Your task to perform on an android device: see sites visited before in the chrome app Image 0: 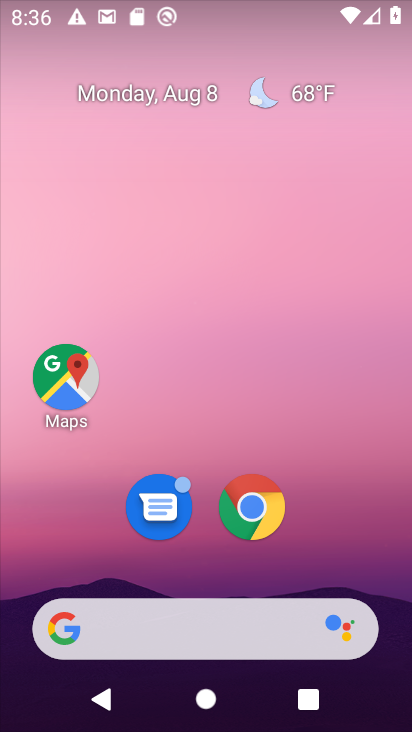
Step 0: click (250, 513)
Your task to perform on an android device: see sites visited before in the chrome app Image 1: 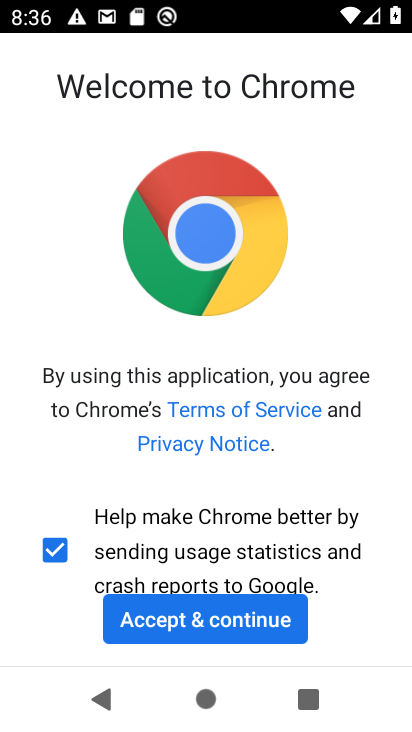
Step 1: click (125, 608)
Your task to perform on an android device: see sites visited before in the chrome app Image 2: 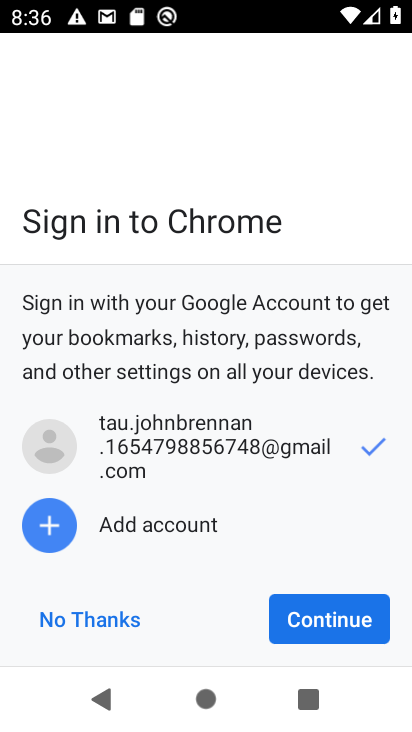
Step 2: click (301, 617)
Your task to perform on an android device: see sites visited before in the chrome app Image 3: 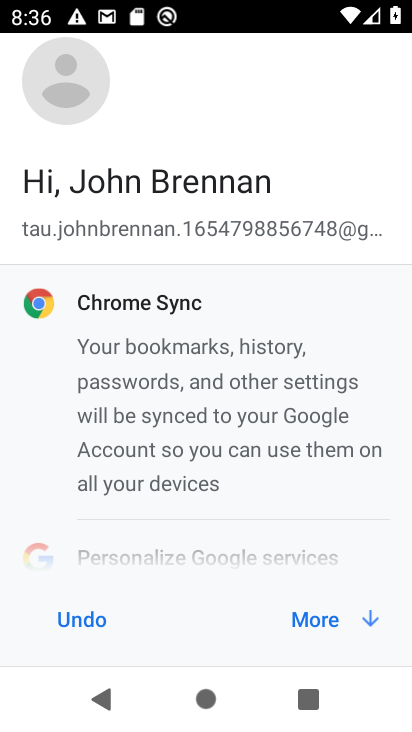
Step 3: click (340, 611)
Your task to perform on an android device: see sites visited before in the chrome app Image 4: 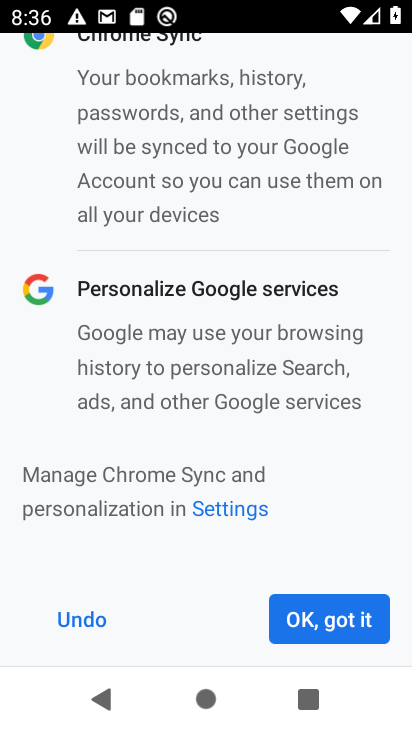
Step 4: click (340, 611)
Your task to perform on an android device: see sites visited before in the chrome app Image 5: 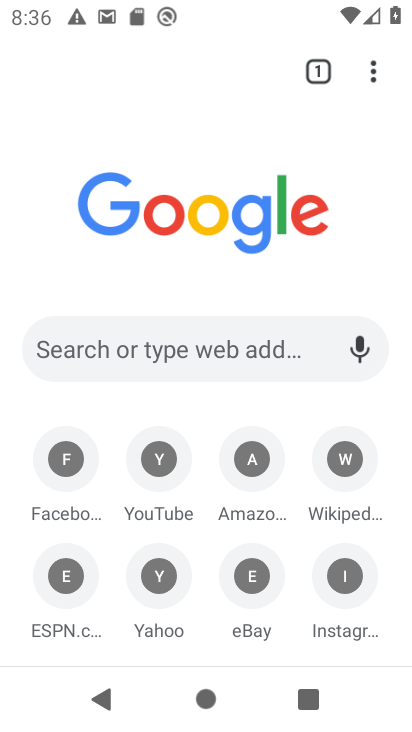
Step 5: click (366, 62)
Your task to perform on an android device: see sites visited before in the chrome app Image 6: 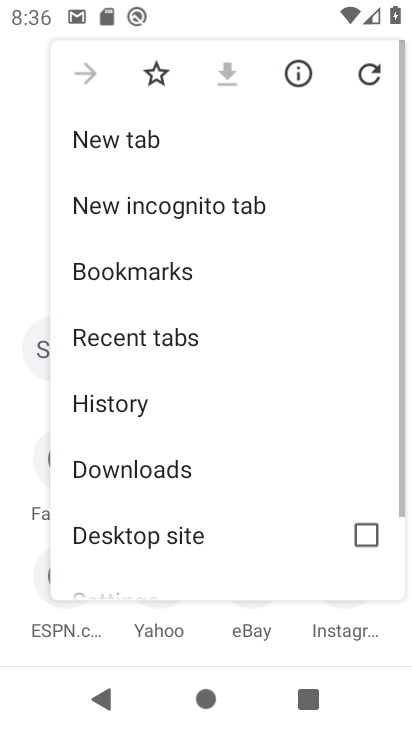
Step 6: drag from (262, 458) to (220, 118)
Your task to perform on an android device: see sites visited before in the chrome app Image 7: 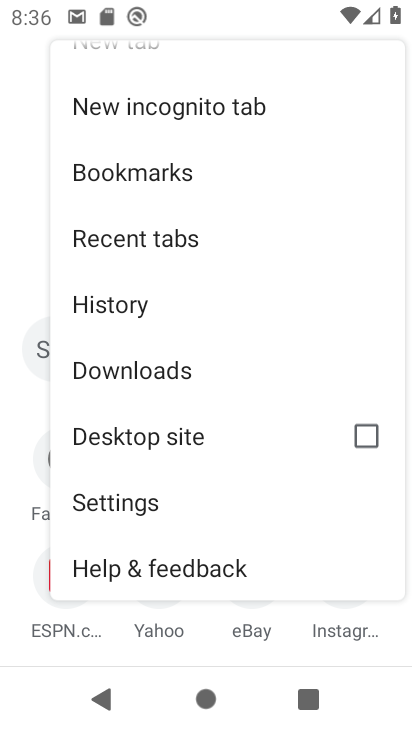
Step 7: click (71, 489)
Your task to perform on an android device: see sites visited before in the chrome app Image 8: 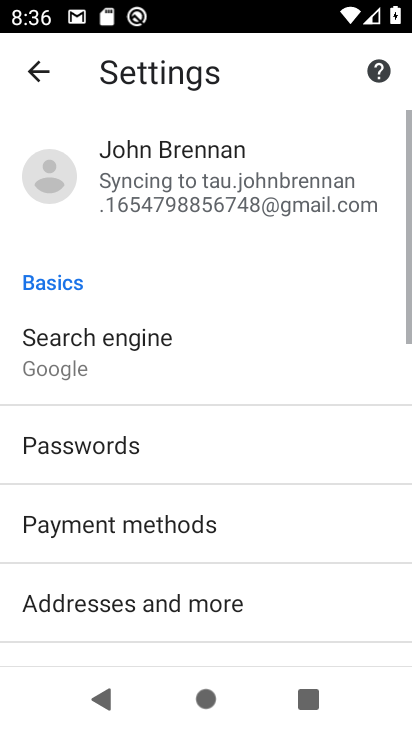
Step 8: drag from (71, 489) to (51, 175)
Your task to perform on an android device: see sites visited before in the chrome app Image 9: 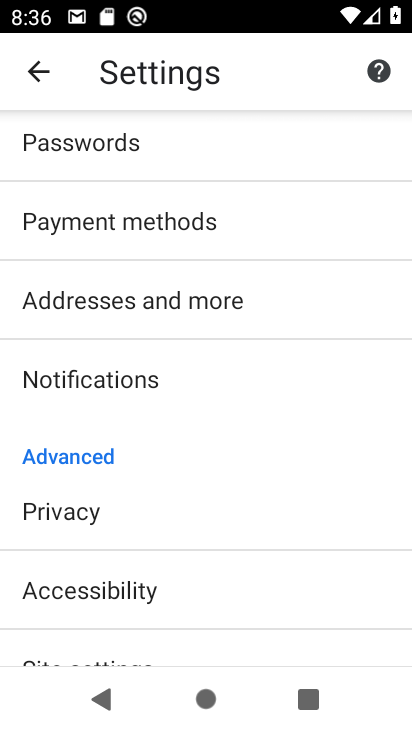
Step 9: drag from (173, 443) to (70, 2)
Your task to perform on an android device: see sites visited before in the chrome app Image 10: 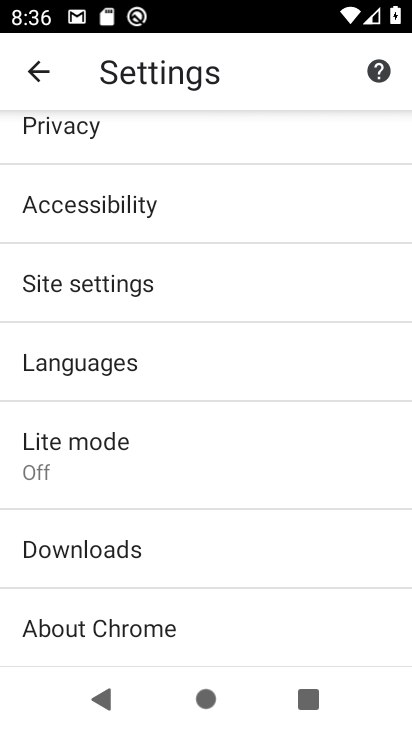
Step 10: drag from (192, 194) to (194, 567)
Your task to perform on an android device: see sites visited before in the chrome app Image 11: 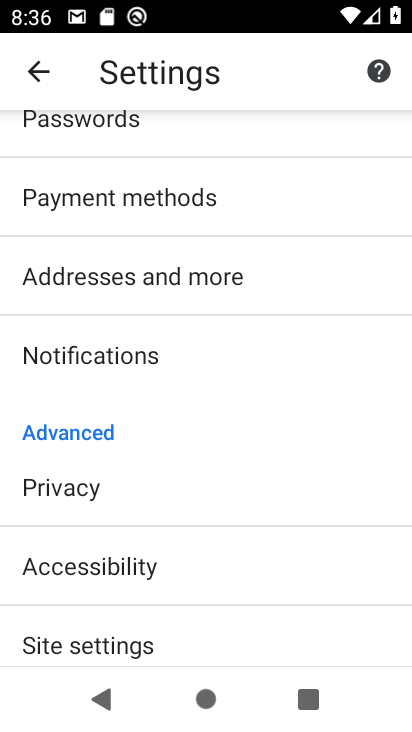
Step 11: drag from (273, 214) to (345, 479)
Your task to perform on an android device: see sites visited before in the chrome app Image 12: 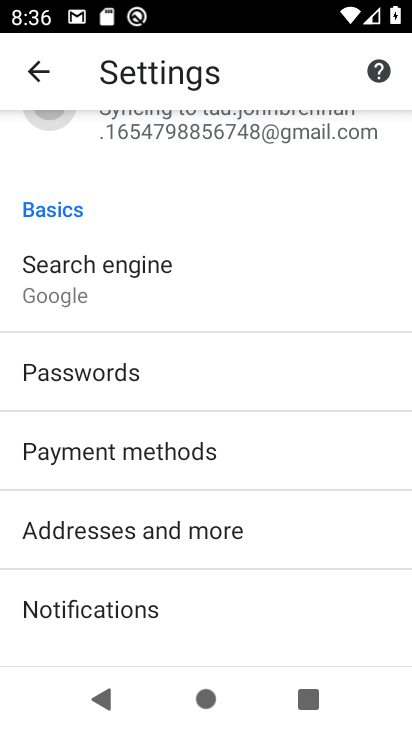
Step 12: click (28, 54)
Your task to perform on an android device: see sites visited before in the chrome app Image 13: 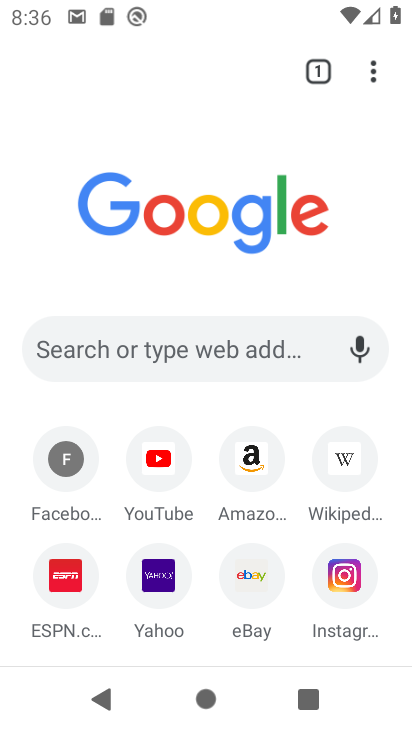
Step 13: click (365, 65)
Your task to perform on an android device: see sites visited before in the chrome app Image 14: 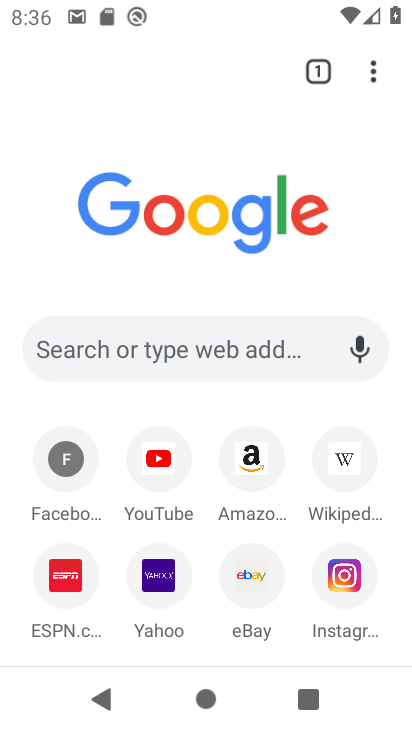
Step 14: click (365, 65)
Your task to perform on an android device: see sites visited before in the chrome app Image 15: 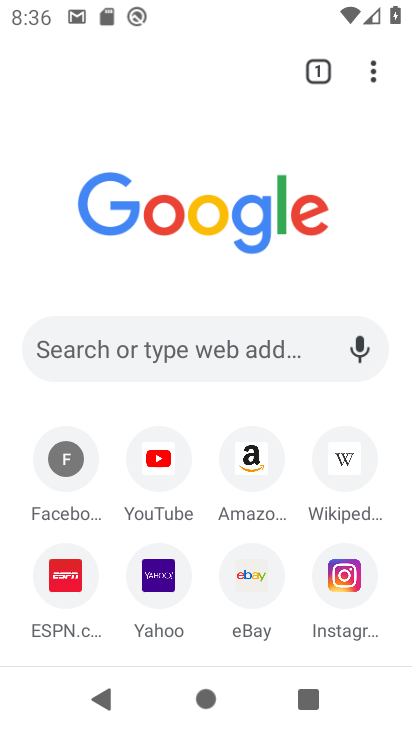
Step 15: click (365, 65)
Your task to perform on an android device: see sites visited before in the chrome app Image 16: 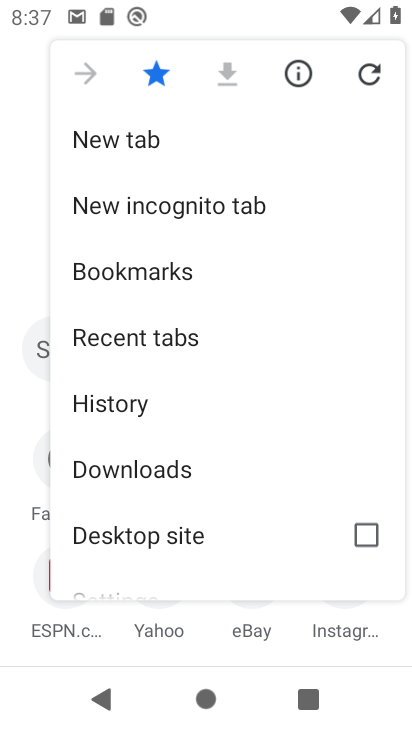
Step 16: click (84, 420)
Your task to perform on an android device: see sites visited before in the chrome app Image 17: 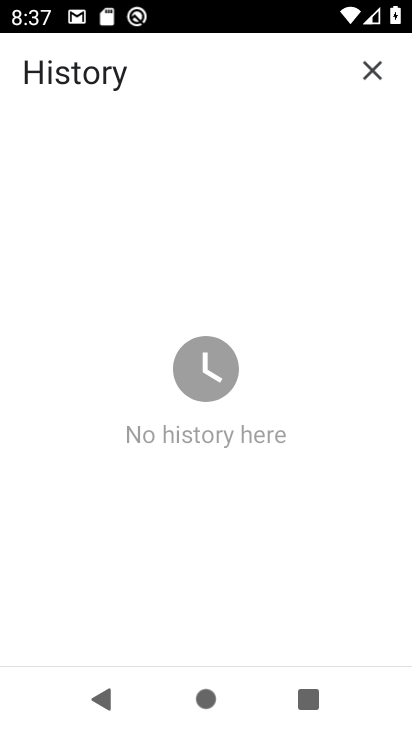
Step 17: task complete